Your task to perform on an android device: Open calendar and show me the first week of next month Image 0: 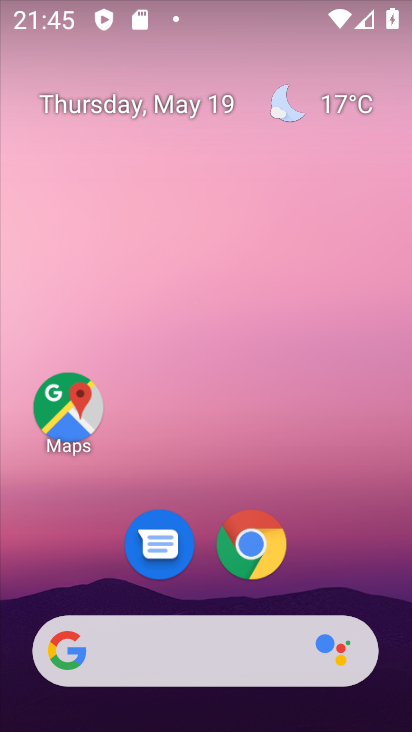
Step 0: drag from (206, 712) to (232, 165)
Your task to perform on an android device: Open calendar and show me the first week of next month Image 1: 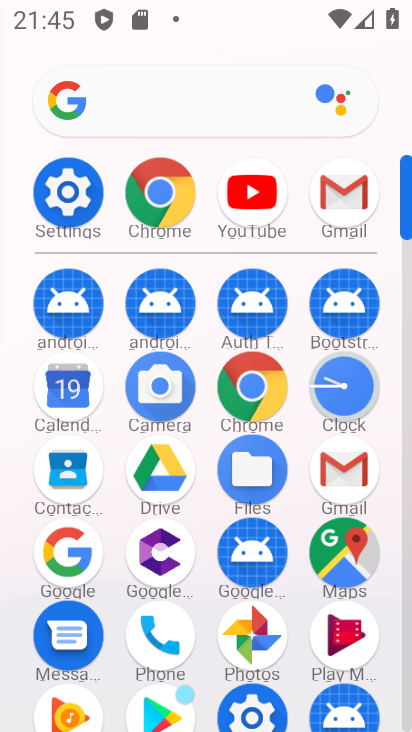
Step 1: click (68, 392)
Your task to perform on an android device: Open calendar and show me the first week of next month Image 2: 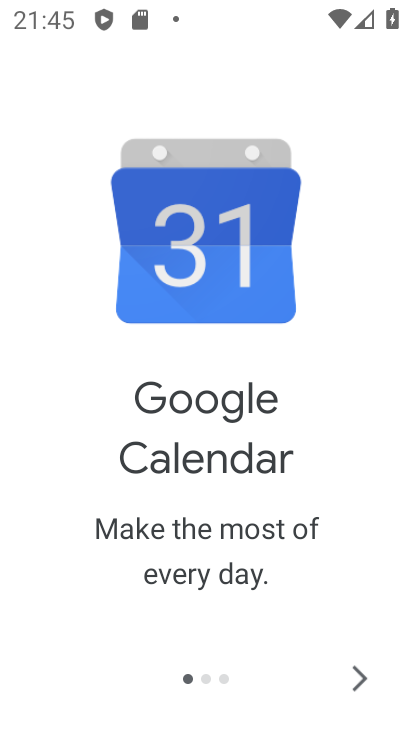
Step 2: click (361, 678)
Your task to perform on an android device: Open calendar and show me the first week of next month Image 3: 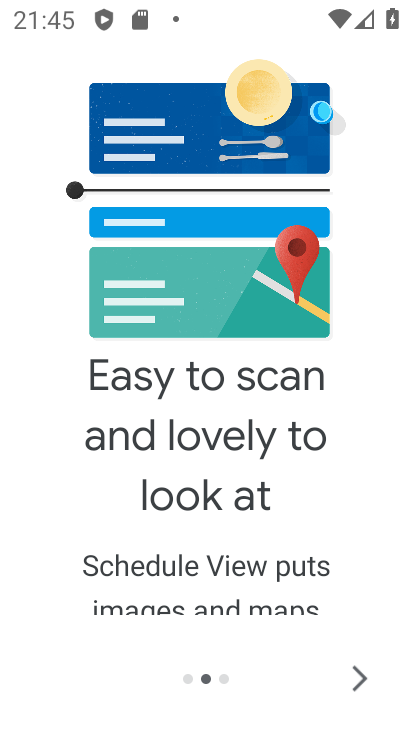
Step 3: click (361, 678)
Your task to perform on an android device: Open calendar and show me the first week of next month Image 4: 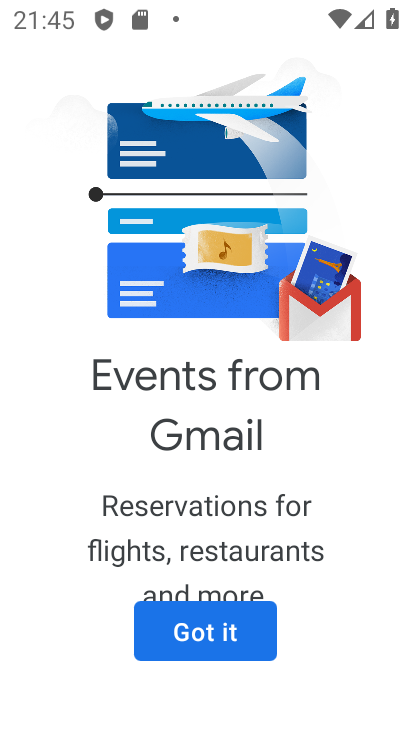
Step 4: click (219, 645)
Your task to perform on an android device: Open calendar and show me the first week of next month Image 5: 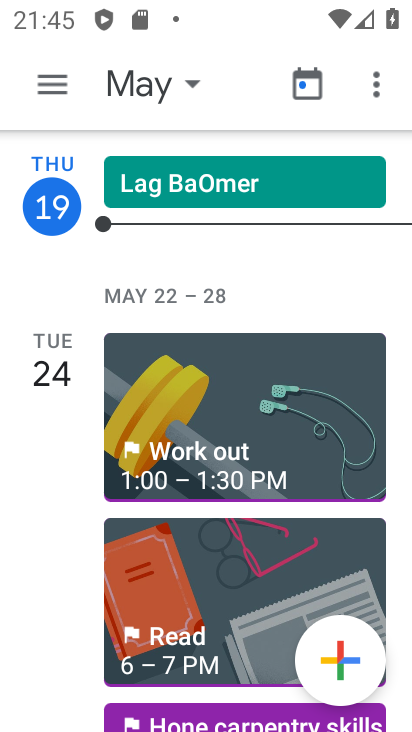
Step 5: task complete